Your task to perform on an android device: Open wifi settings Image 0: 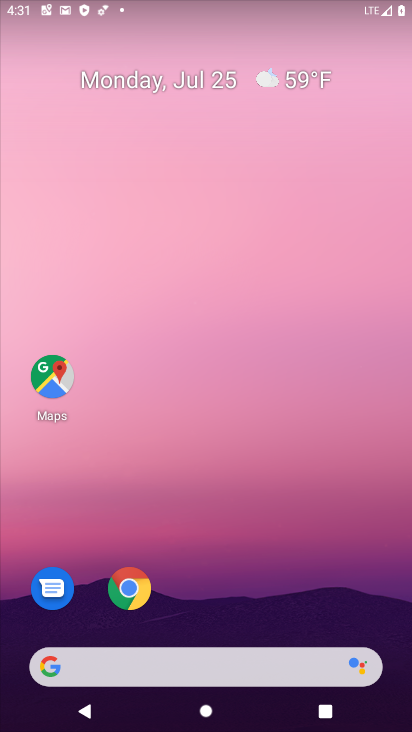
Step 0: press home button
Your task to perform on an android device: Open wifi settings Image 1: 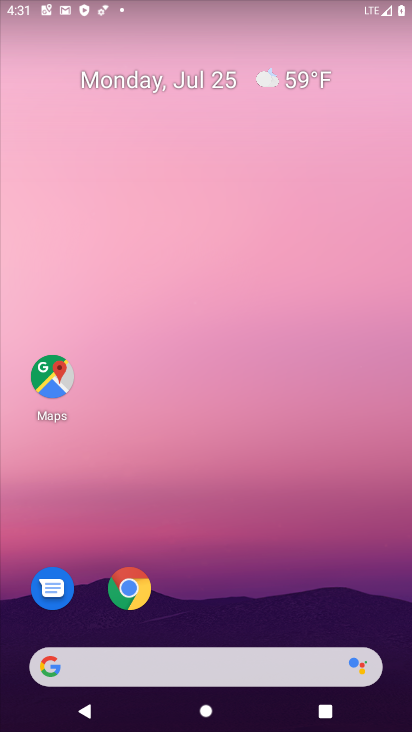
Step 1: drag from (373, 12) to (366, 481)
Your task to perform on an android device: Open wifi settings Image 2: 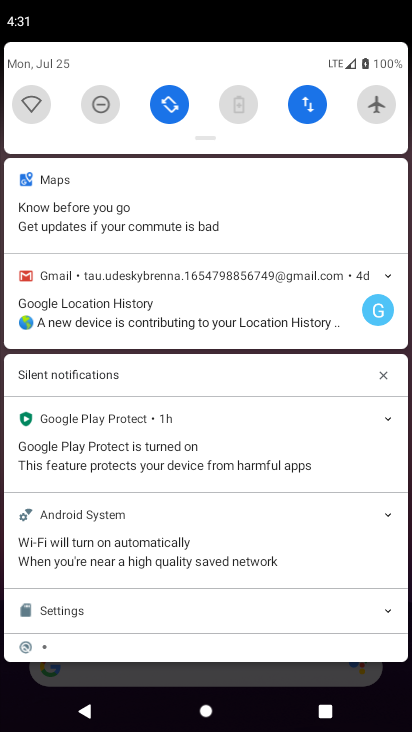
Step 2: click (41, 95)
Your task to perform on an android device: Open wifi settings Image 3: 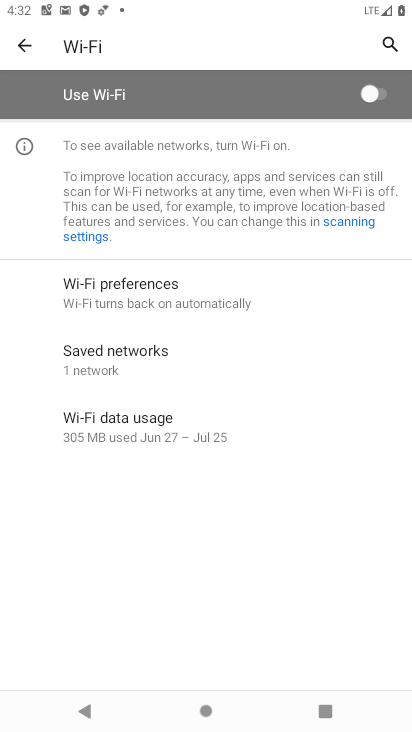
Step 3: task complete